Your task to perform on an android device: turn on location history Image 0: 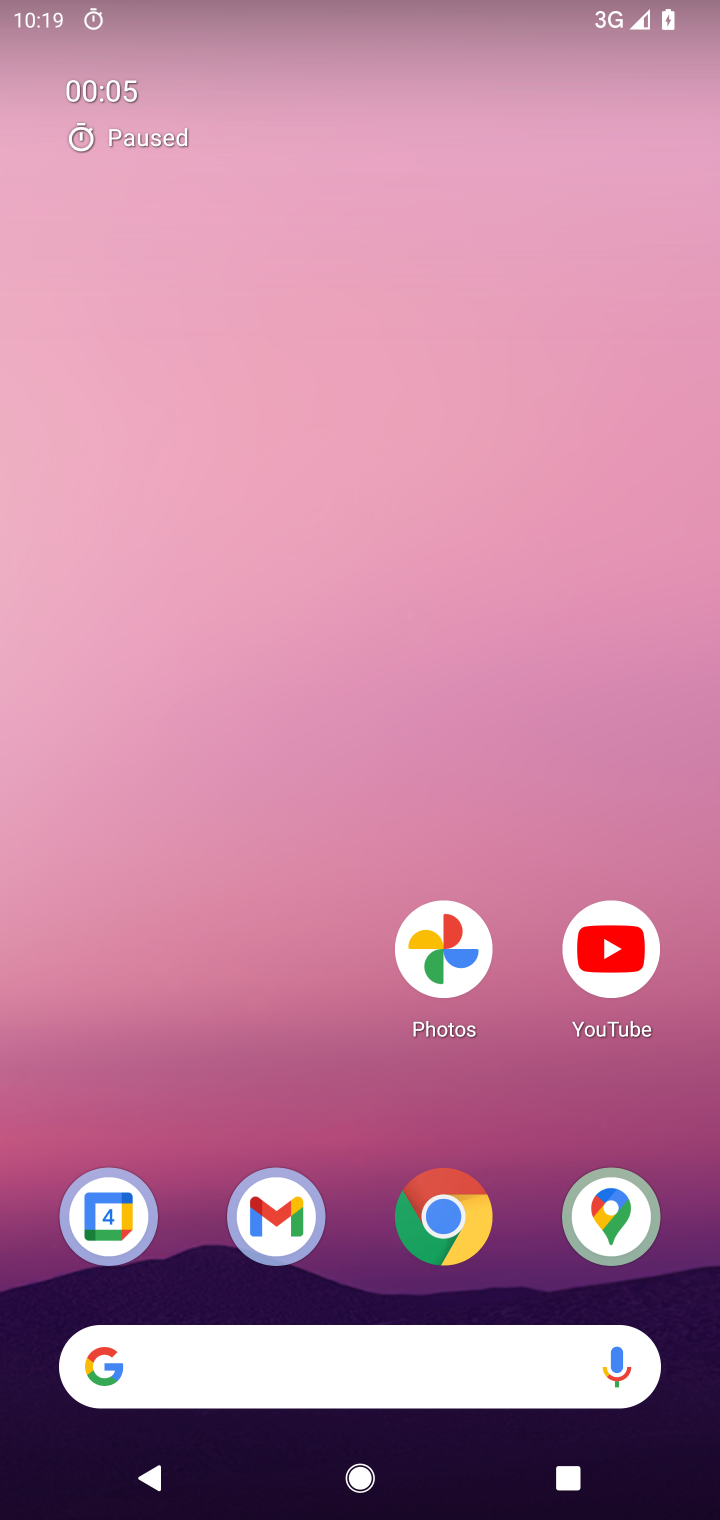
Step 0: drag from (341, 1043) to (321, 132)
Your task to perform on an android device: turn on location history Image 1: 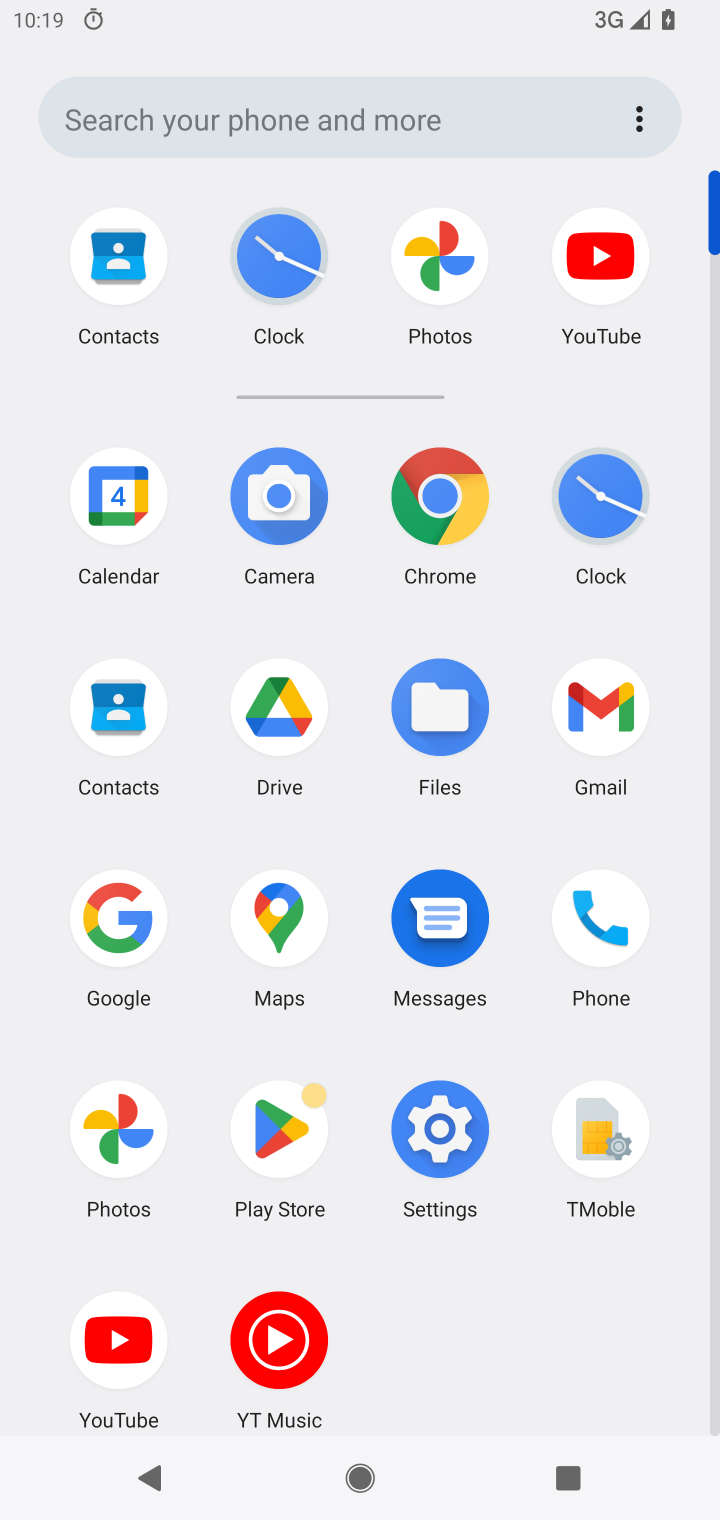
Step 1: click (436, 1138)
Your task to perform on an android device: turn on location history Image 2: 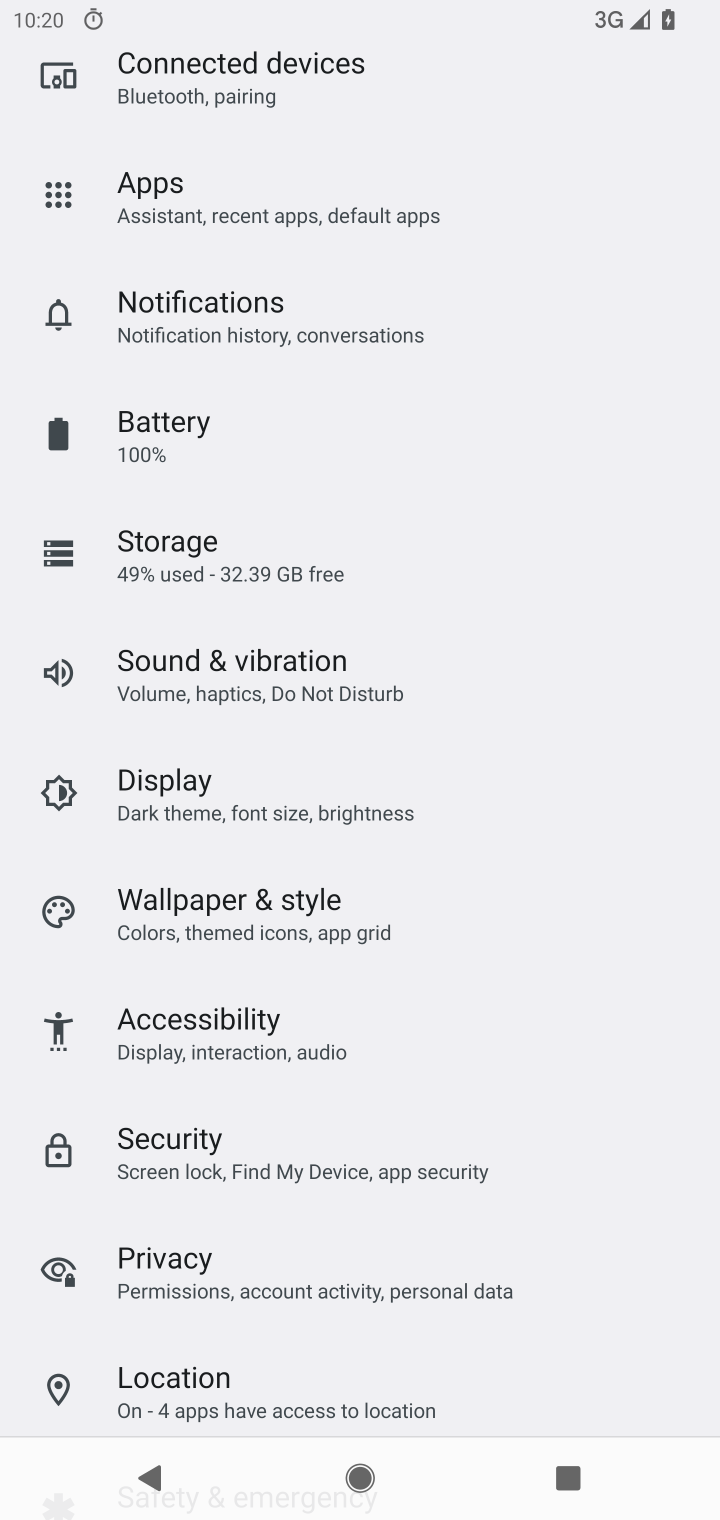
Step 2: click (180, 1386)
Your task to perform on an android device: turn on location history Image 3: 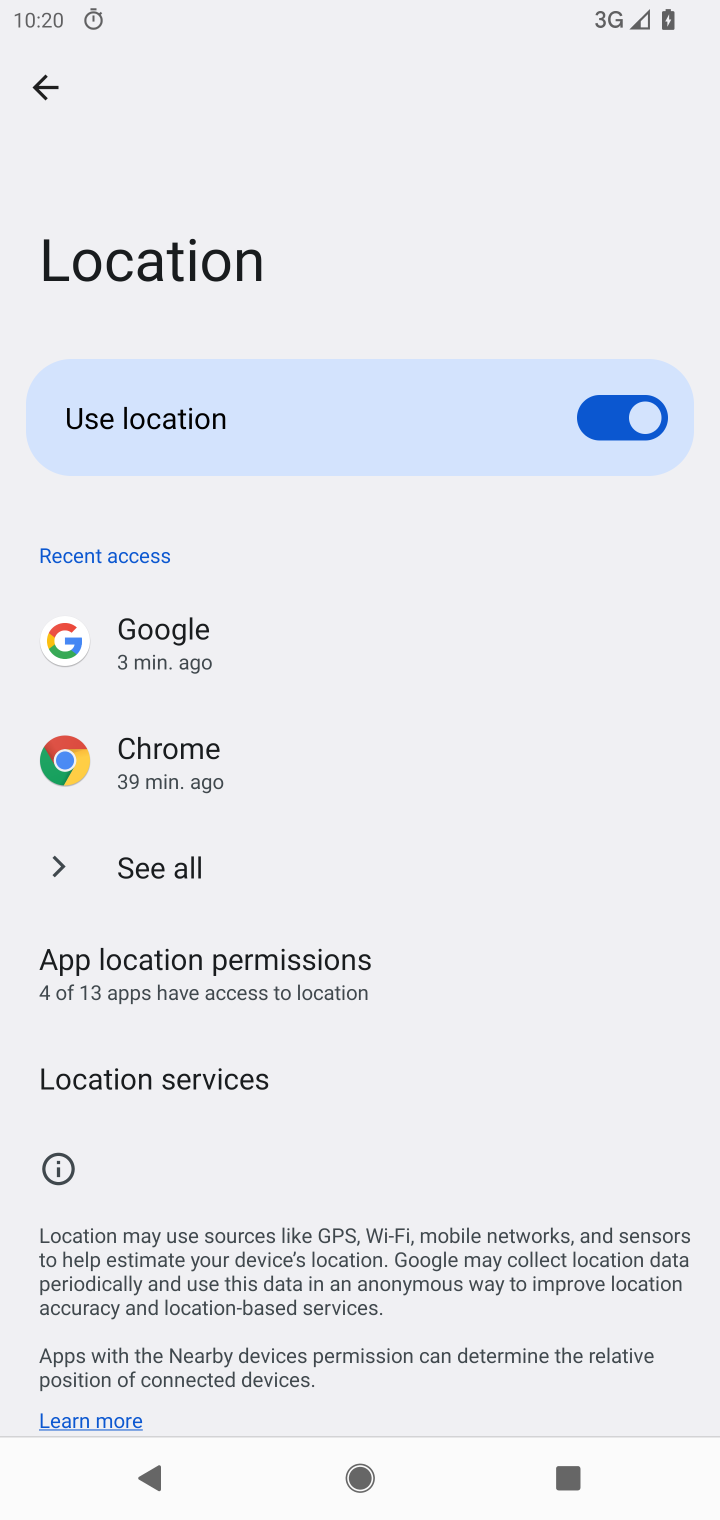
Step 3: click (182, 1083)
Your task to perform on an android device: turn on location history Image 4: 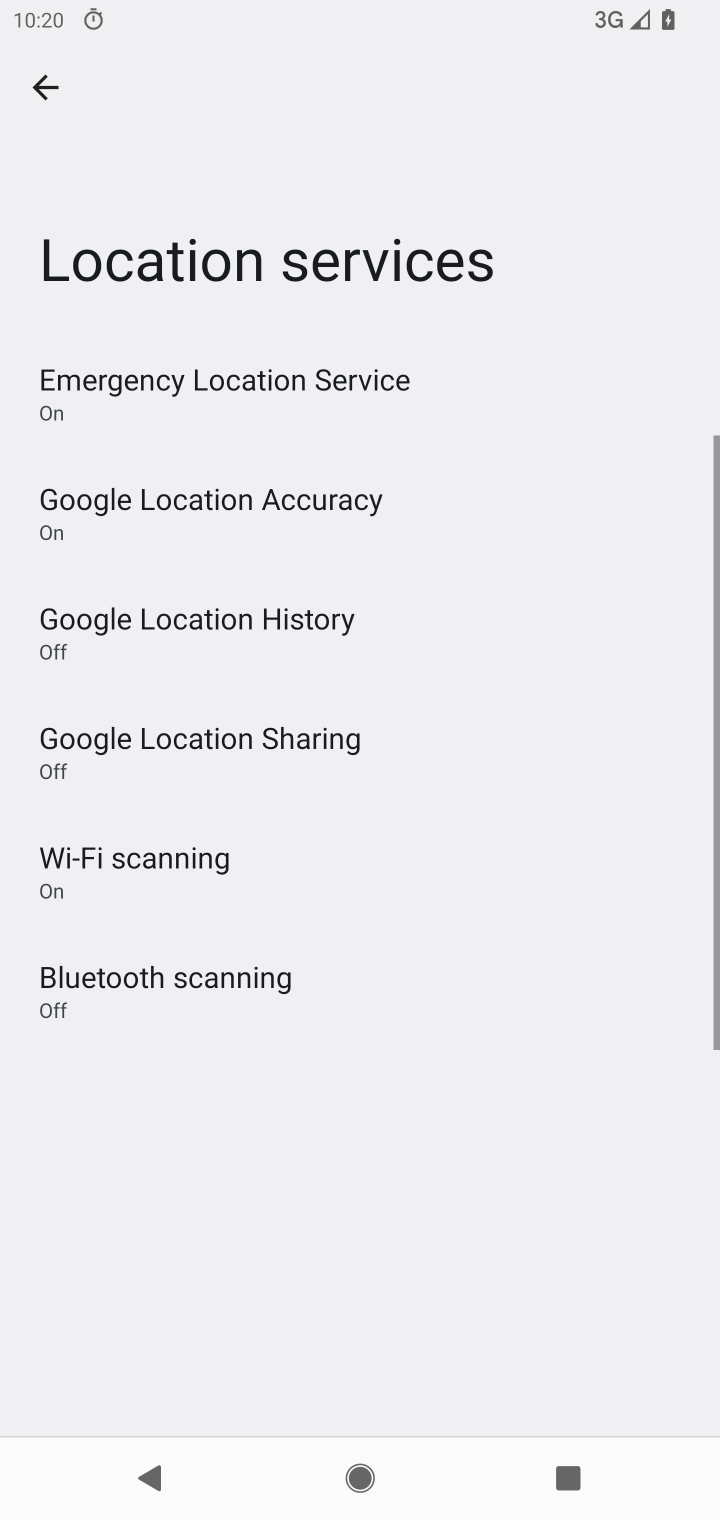
Step 4: click (261, 606)
Your task to perform on an android device: turn on location history Image 5: 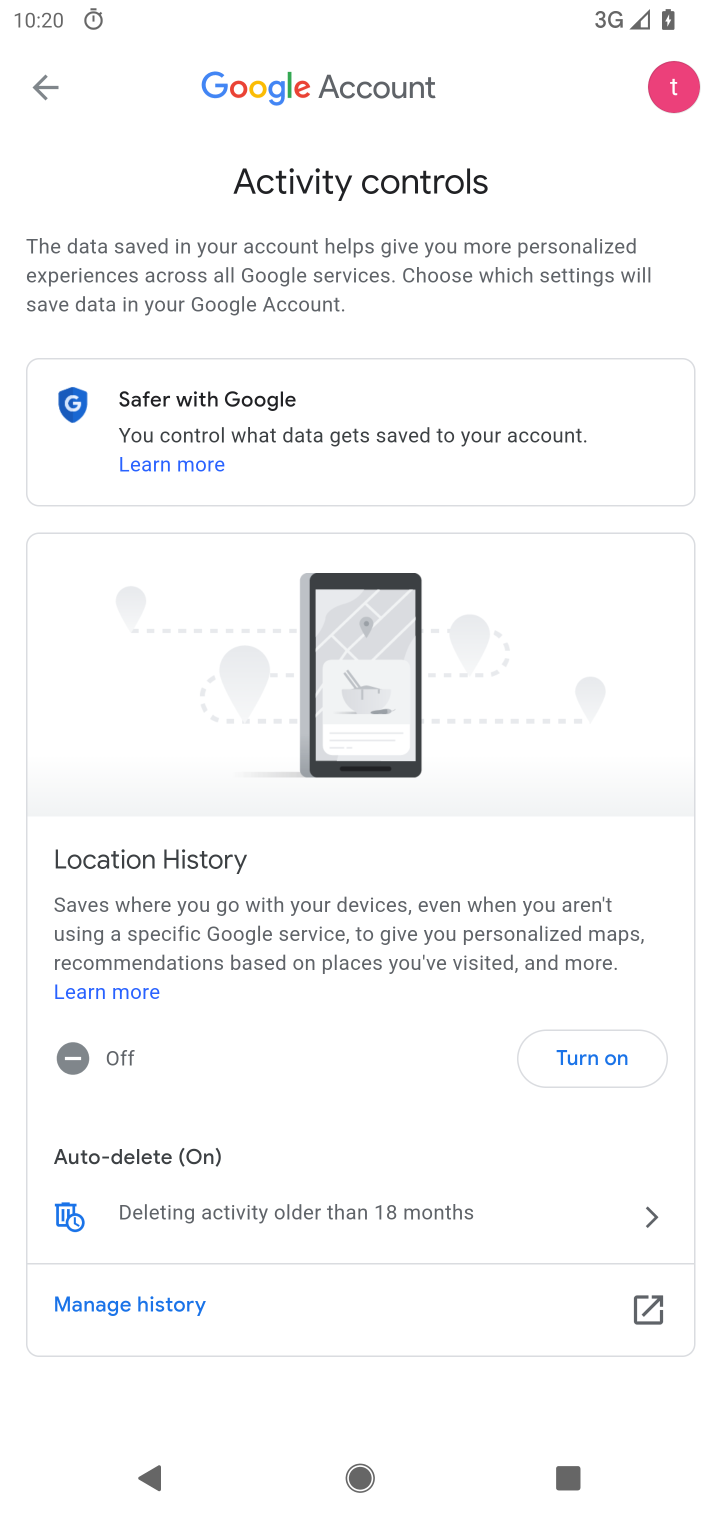
Step 5: click (590, 1049)
Your task to perform on an android device: turn on location history Image 6: 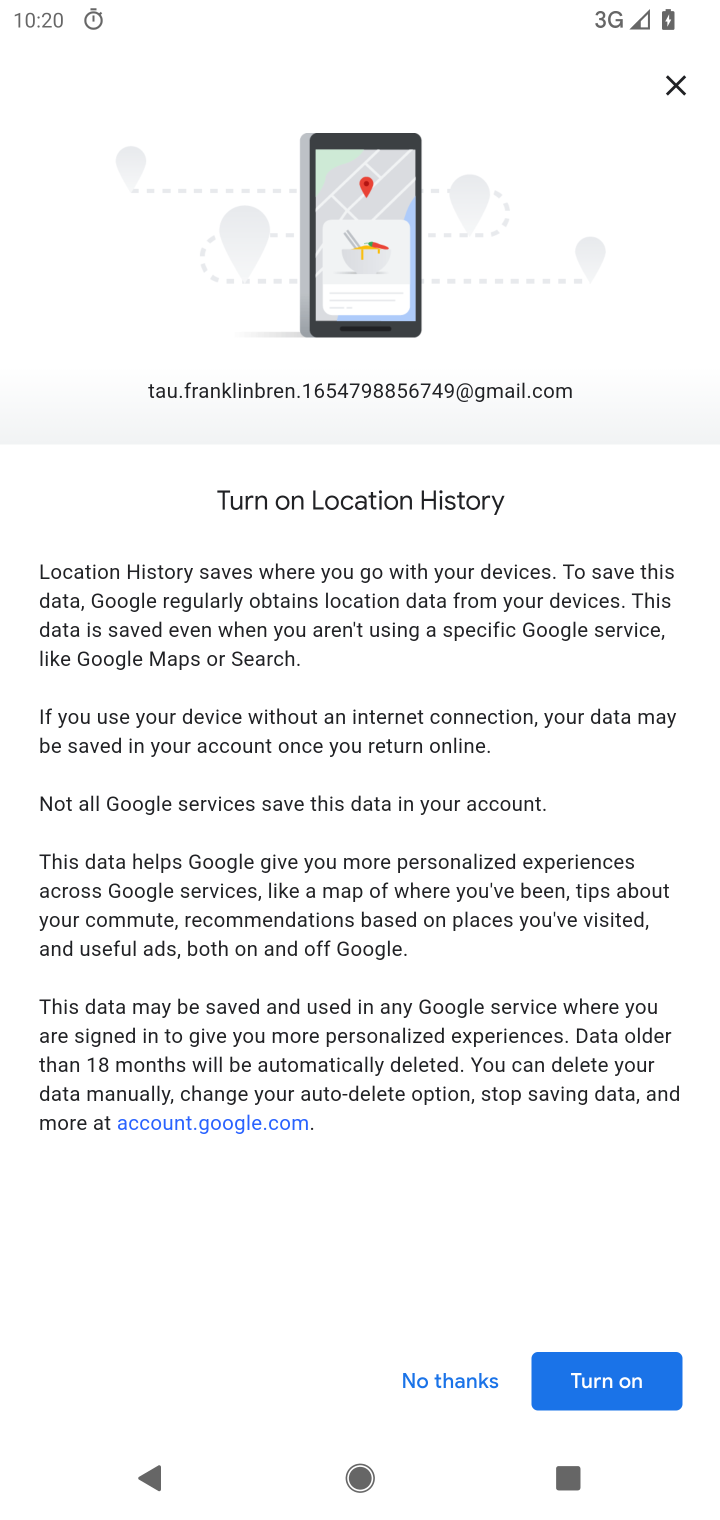
Step 6: click (608, 1388)
Your task to perform on an android device: turn on location history Image 7: 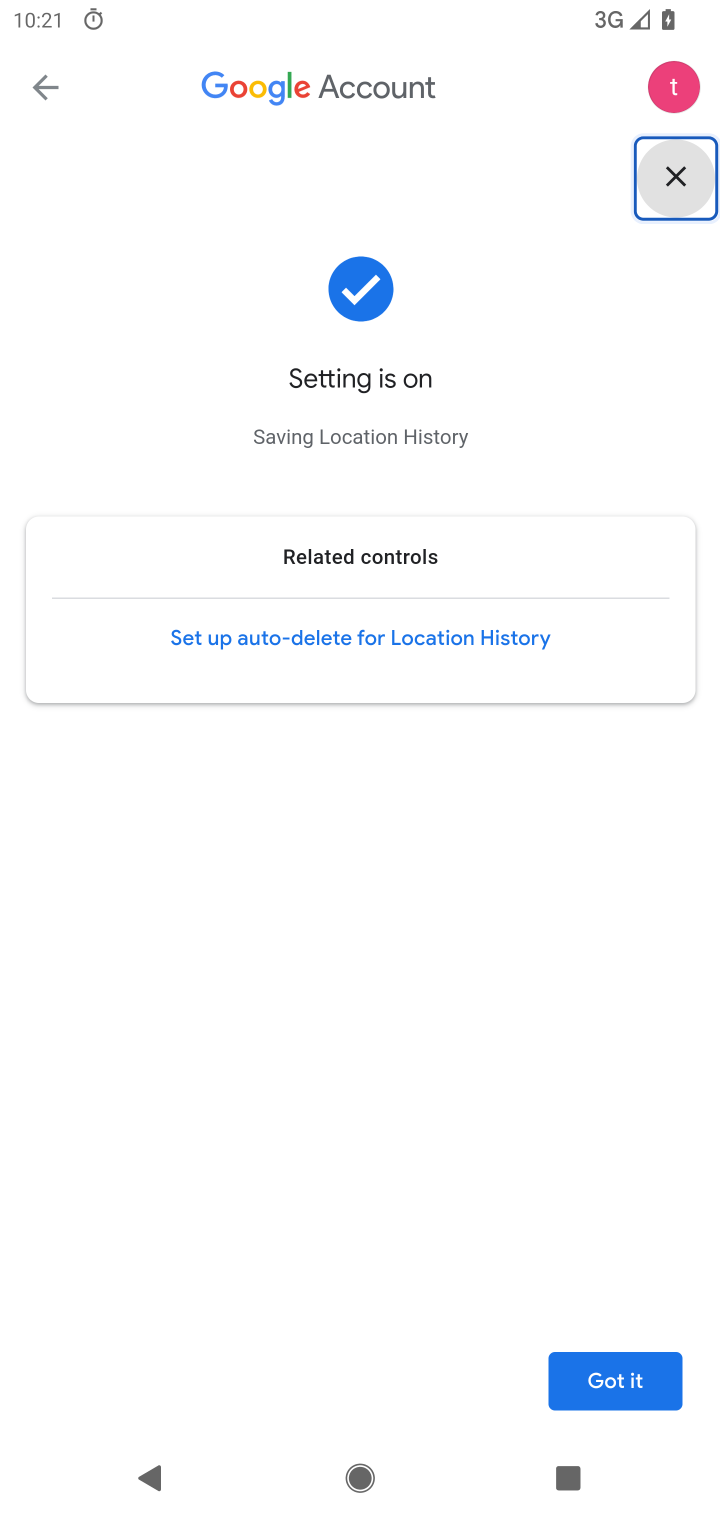
Step 7: task complete